Your task to perform on an android device: Go to Maps Image 0: 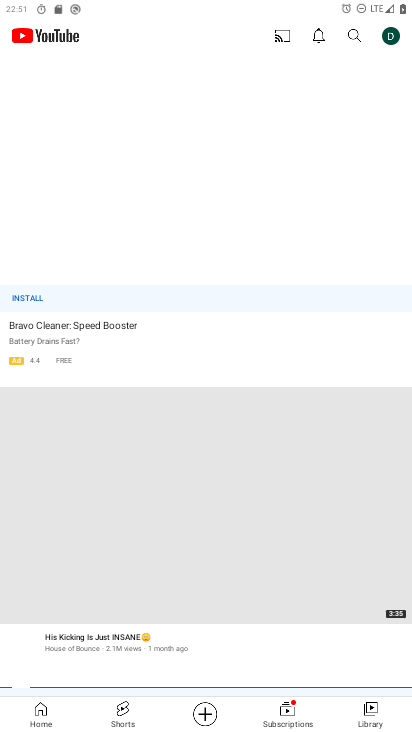
Step 0: drag from (188, 629) to (161, 99)
Your task to perform on an android device: Go to Maps Image 1: 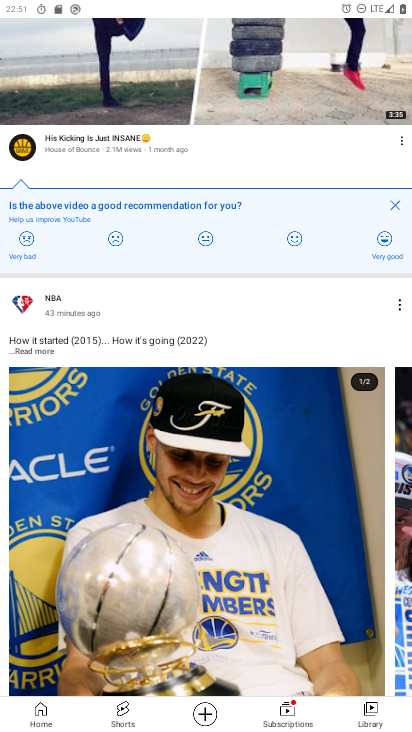
Step 1: press home button
Your task to perform on an android device: Go to Maps Image 2: 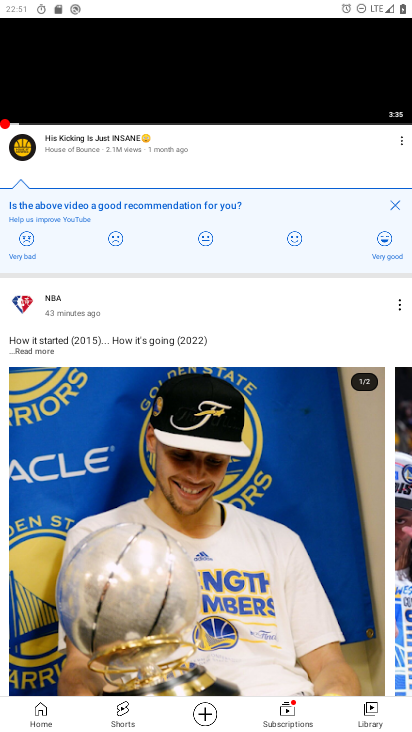
Step 2: drag from (209, 637) to (272, 172)
Your task to perform on an android device: Go to Maps Image 3: 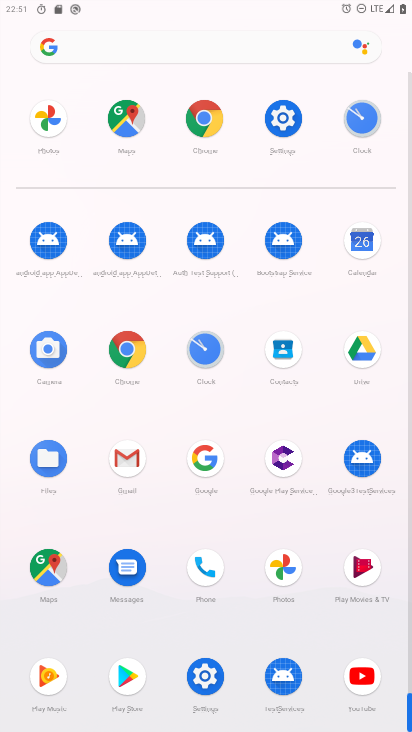
Step 3: drag from (167, 536) to (174, 190)
Your task to perform on an android device: Go to Maps Image 4: 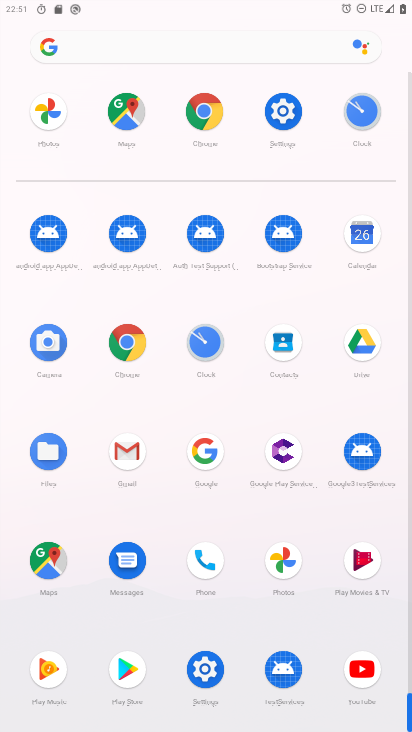
Step 4: click (52, 568)
Your task to perform on an android device: Go to Maps Image 5: 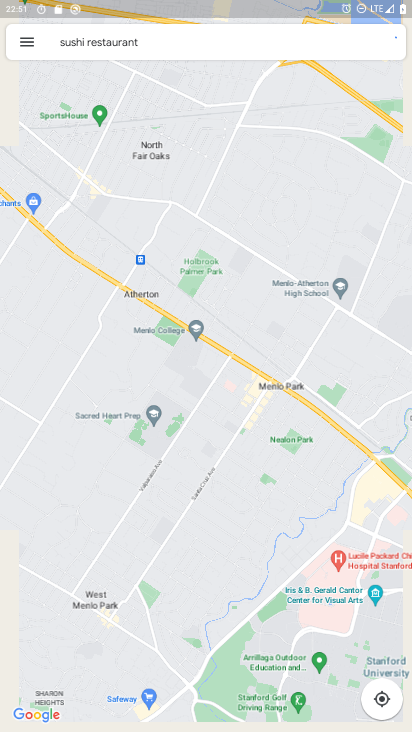
Step 5: task complete